Your task to perform on an android device: Search for beats solo 3 on bestbuy.com, select the first entry, and add it to the cart. Image 0: 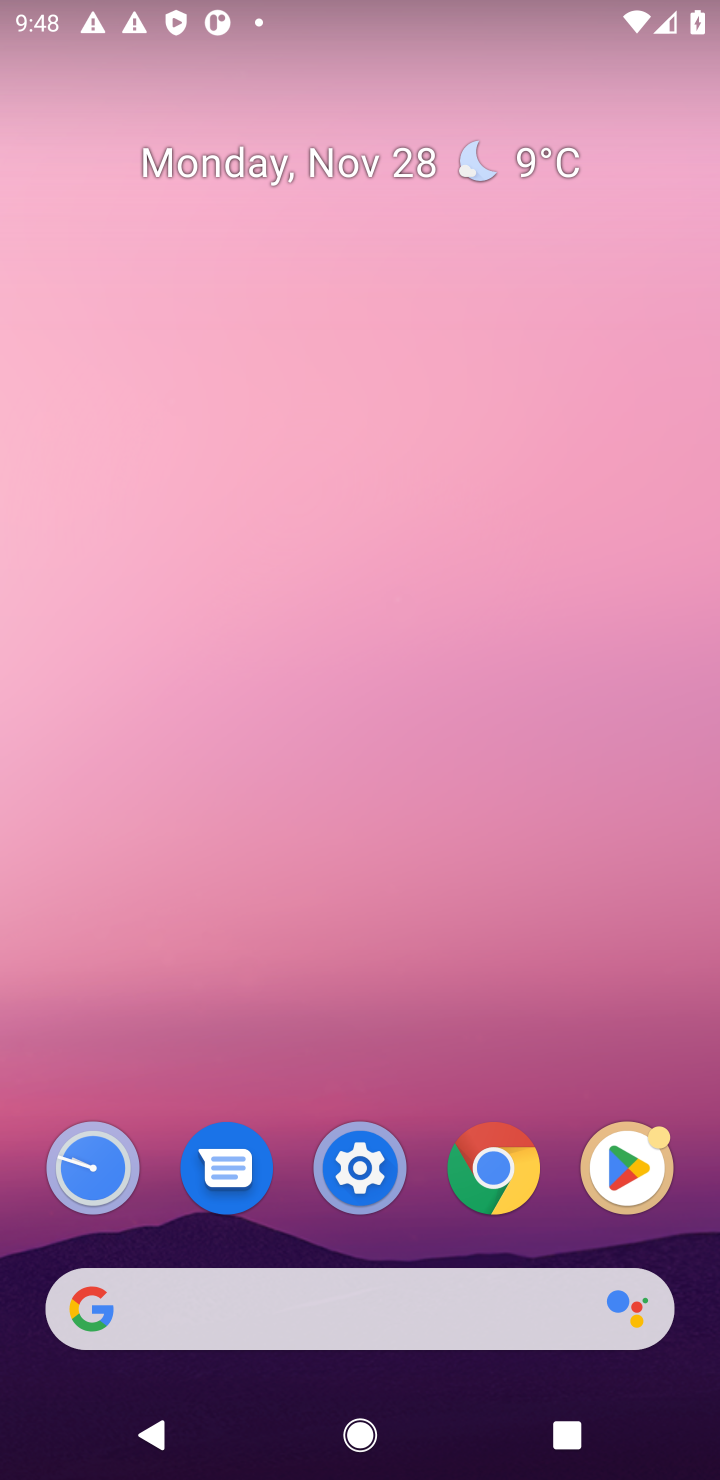
Step 0: click (299, 1315)
Your task to perform on an android device: Search for beats solo 3 on bestbuy.com, select the first entry, and add it to the cart. Image 1: 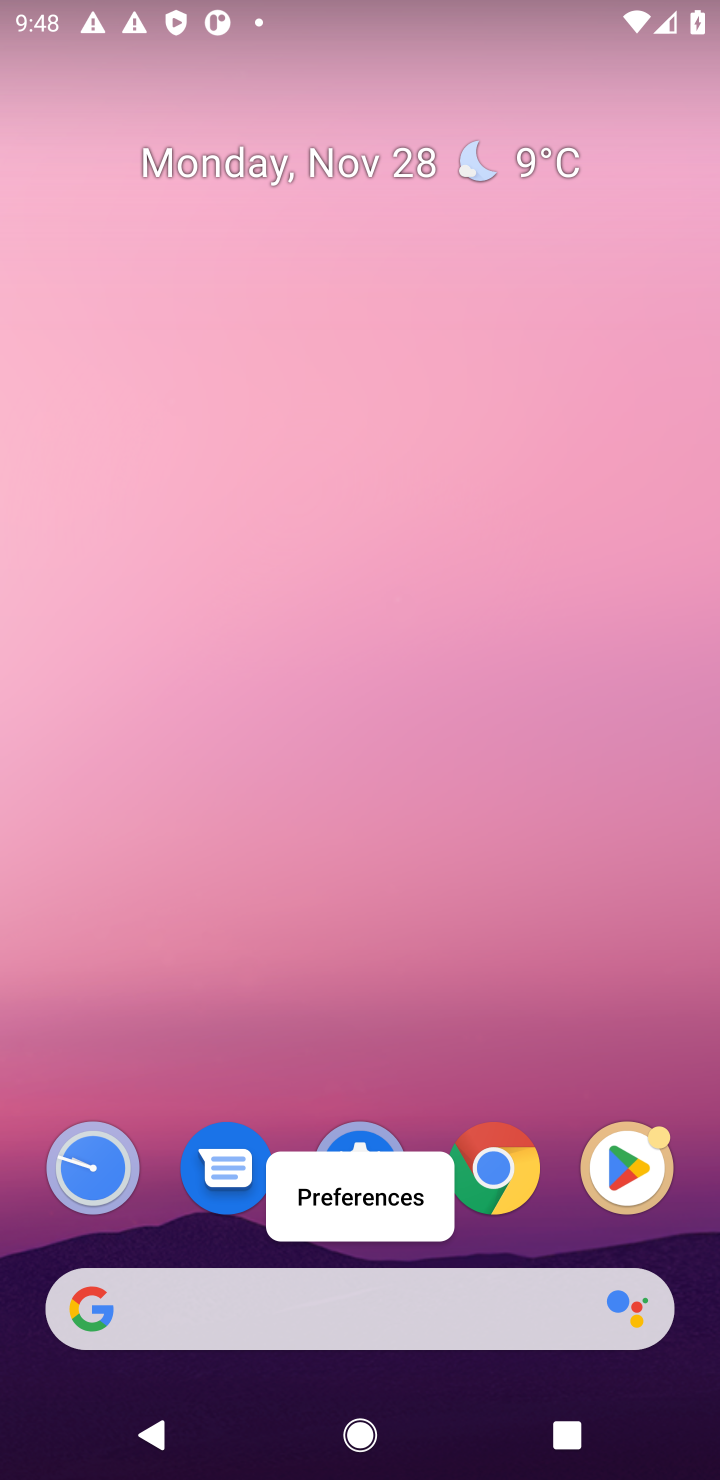
Step 1: type "bestbuy"
Your task to perform on an android device: Search for beats solo 3 on bestbuy.com, select the first entry, and add it to the cart. Image 2: 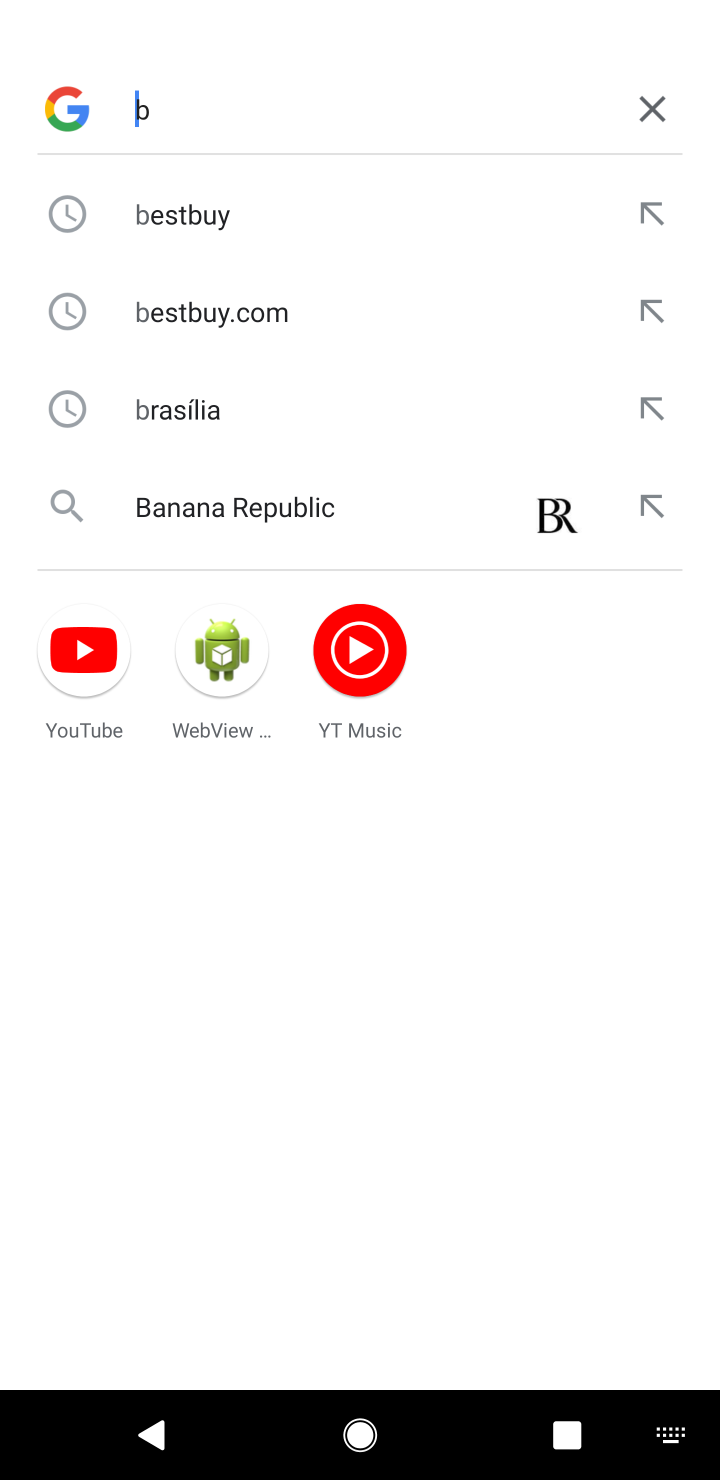
Step 2: click (180, 207)
Your task to perform on an android device: Search for beats solo 3 on bestbuy.com, select the first entry, and add it to the cart. Image 3: 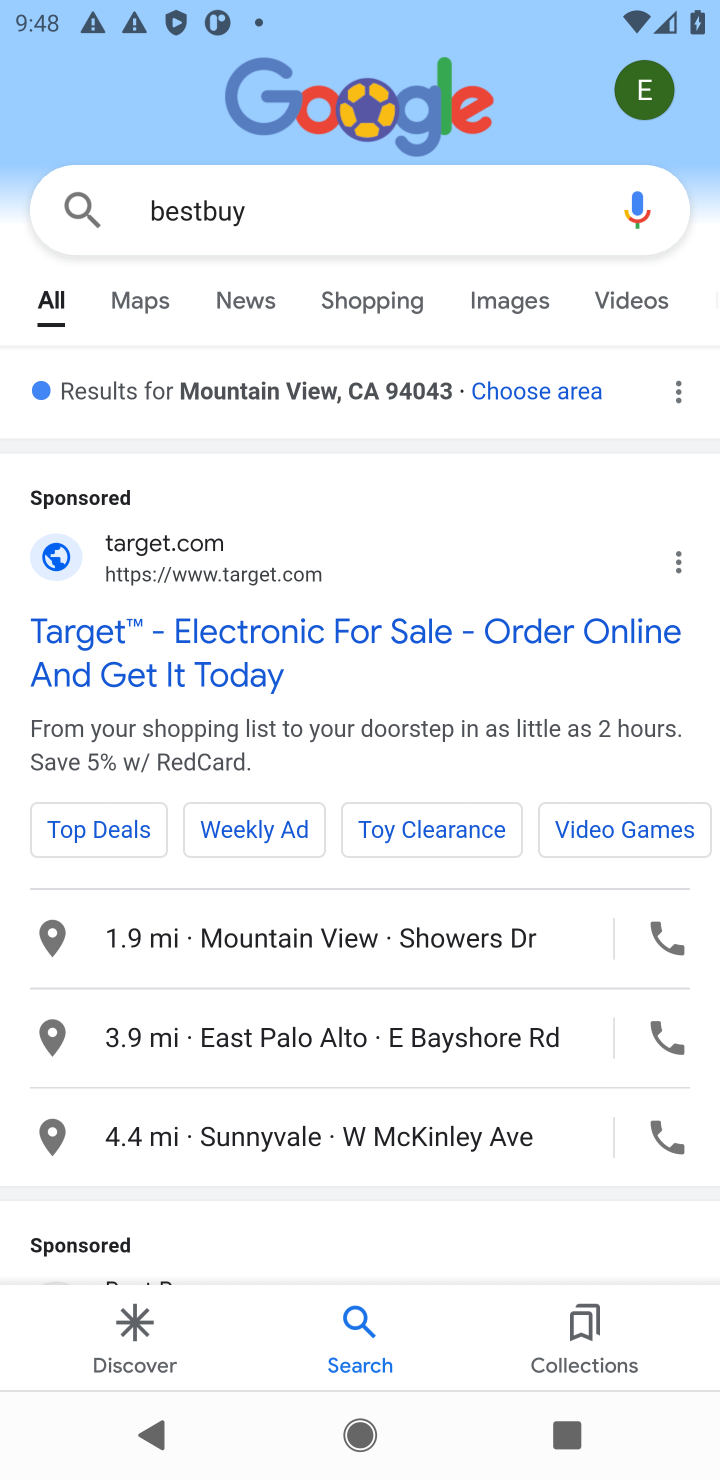
Step 3: click (376, 660)
Your task to perform on an android device: Search for beats solo 3 on bestbuy.com, select the first entry, and add it to the cart. Image 4: 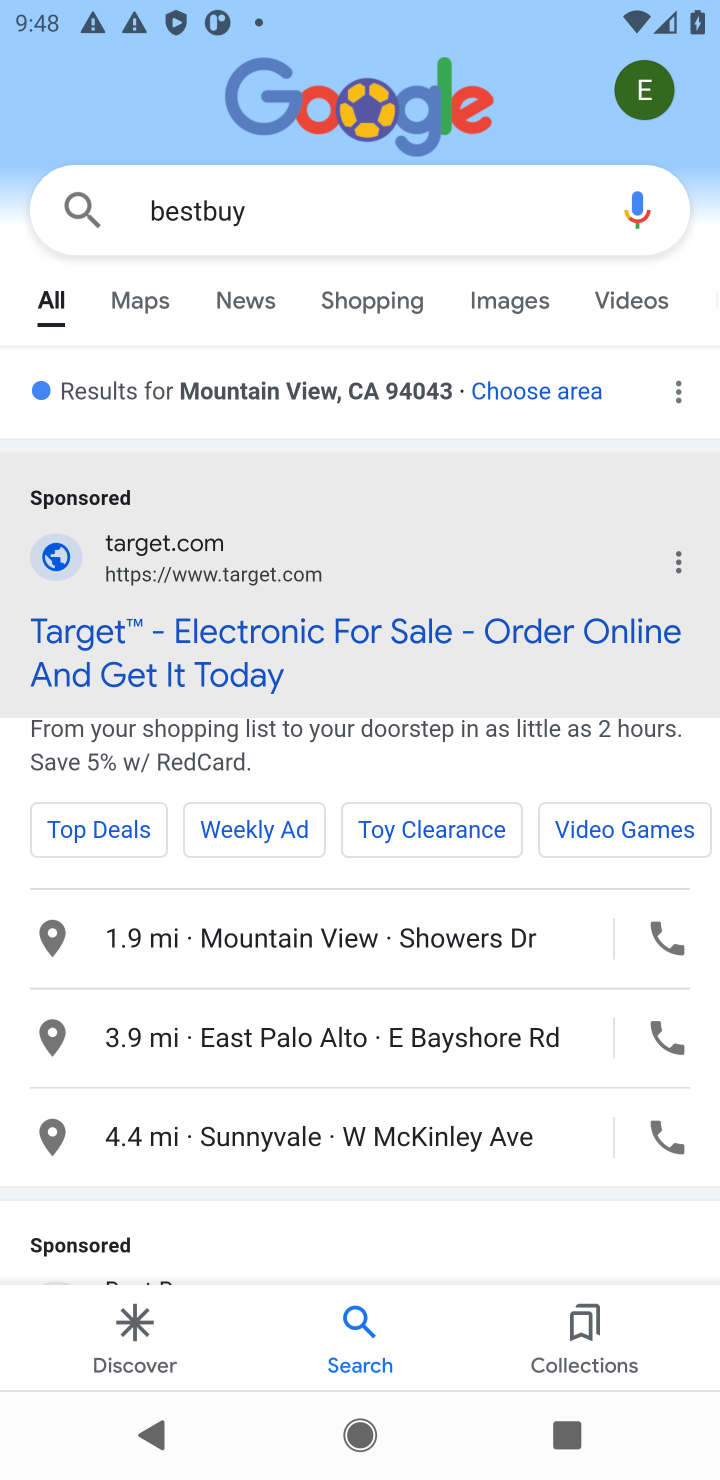
Step 4: click (376, 660)
Your task to perform on an android device: Search for beats solo 3 on bestbuy.com, select the first entry, and add it to the cart. Image 5: 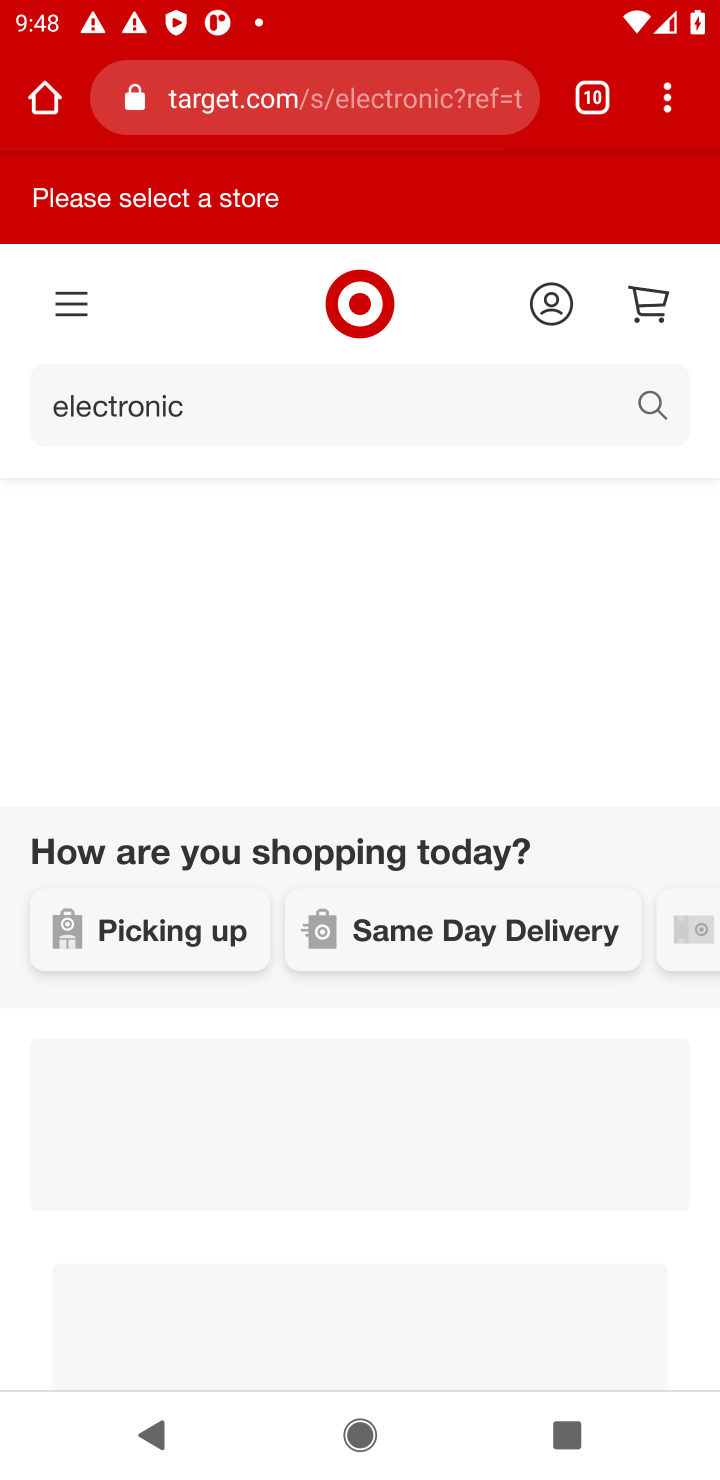
Step 5: click (249, 392)
Your task to perform on an android device: Search for beats solo 3 on bestbuy.com, select the first entry, and add it to the cart. Image 6: 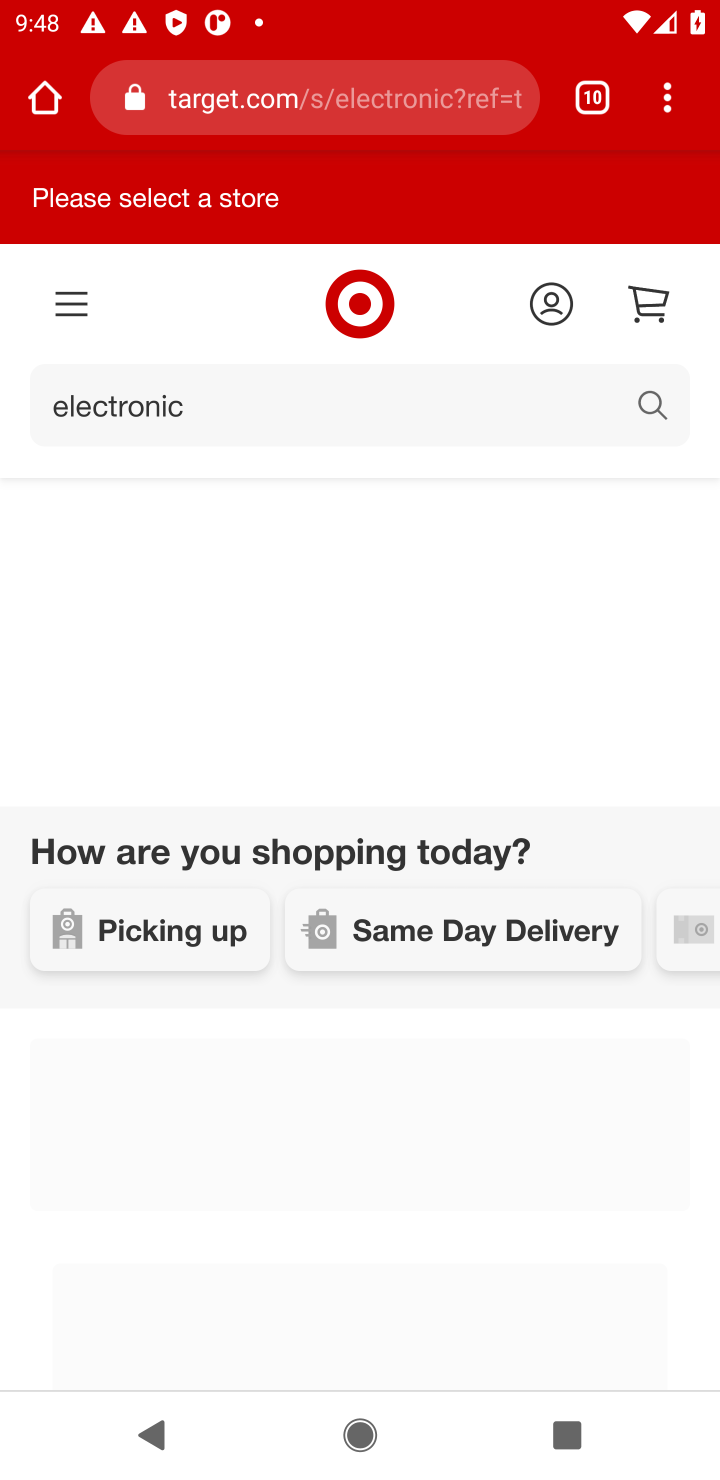
Step 6: click (249, 392)
Your task to perform on an android device: Search for beats solo 3 on bestbuy.com, select the first entry, and add it to the cart. Image 7: 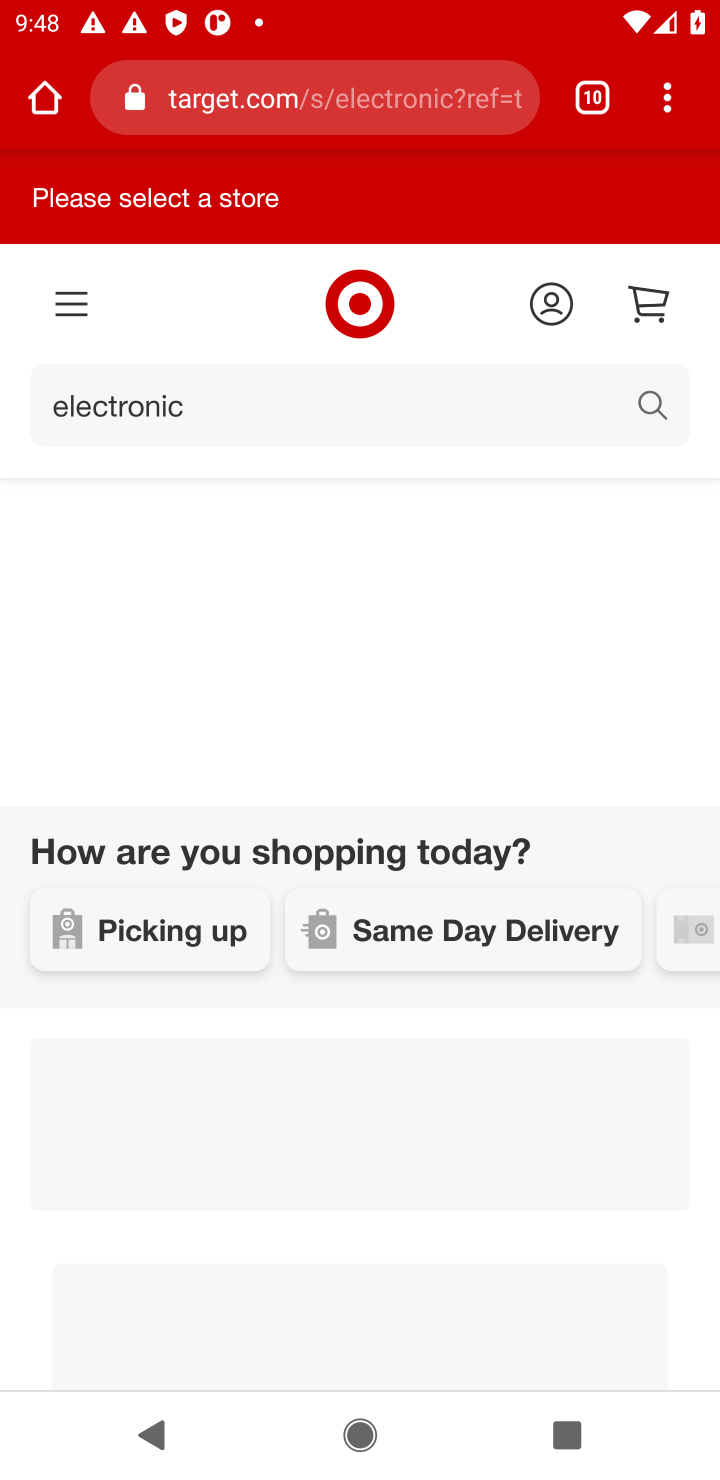
Step 7: click (249, 392)
Your task to perform on an android device: Search for beats solo 3 on bestbuy.com, select the first entry, and add it to the cart. Image 8: 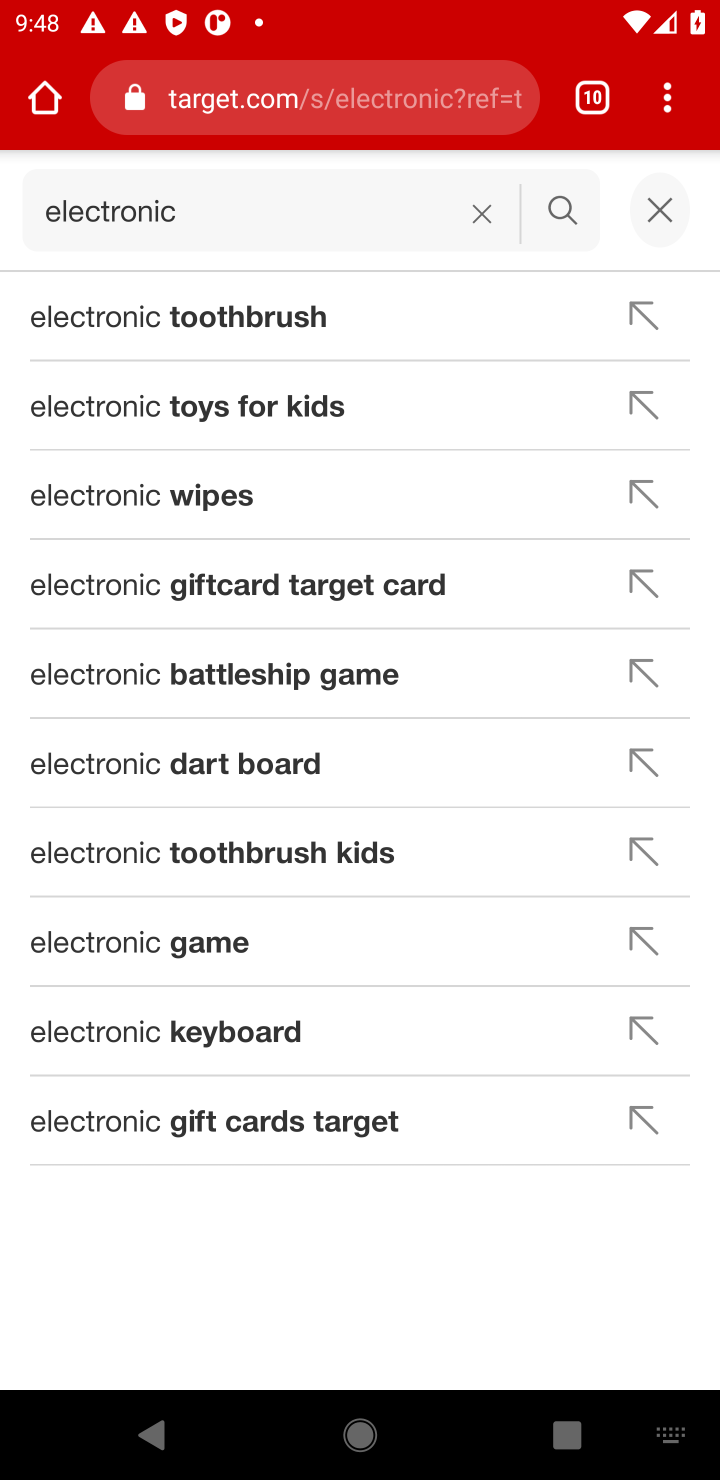
Step 8: click (482, 222)
Your task to perform on an android device: Search for beats solo 3 on bestbuy.com, select the first entry, and add it to the cart. Image 9: 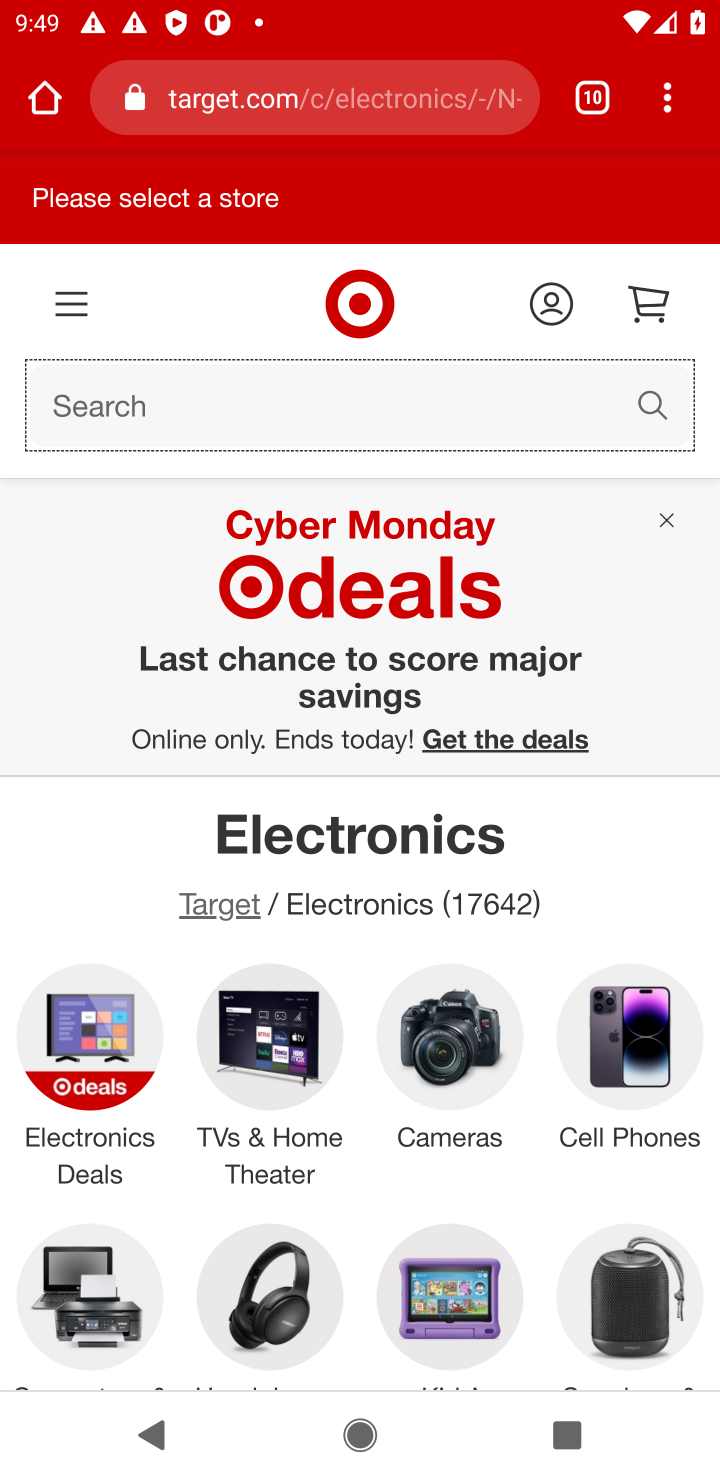
Step 9: type "beats solo 3"
Your task to perform on an android device: Search for beats solo 3 on bestbuy.com, select the first entry, and add it to the cart. Image 10: 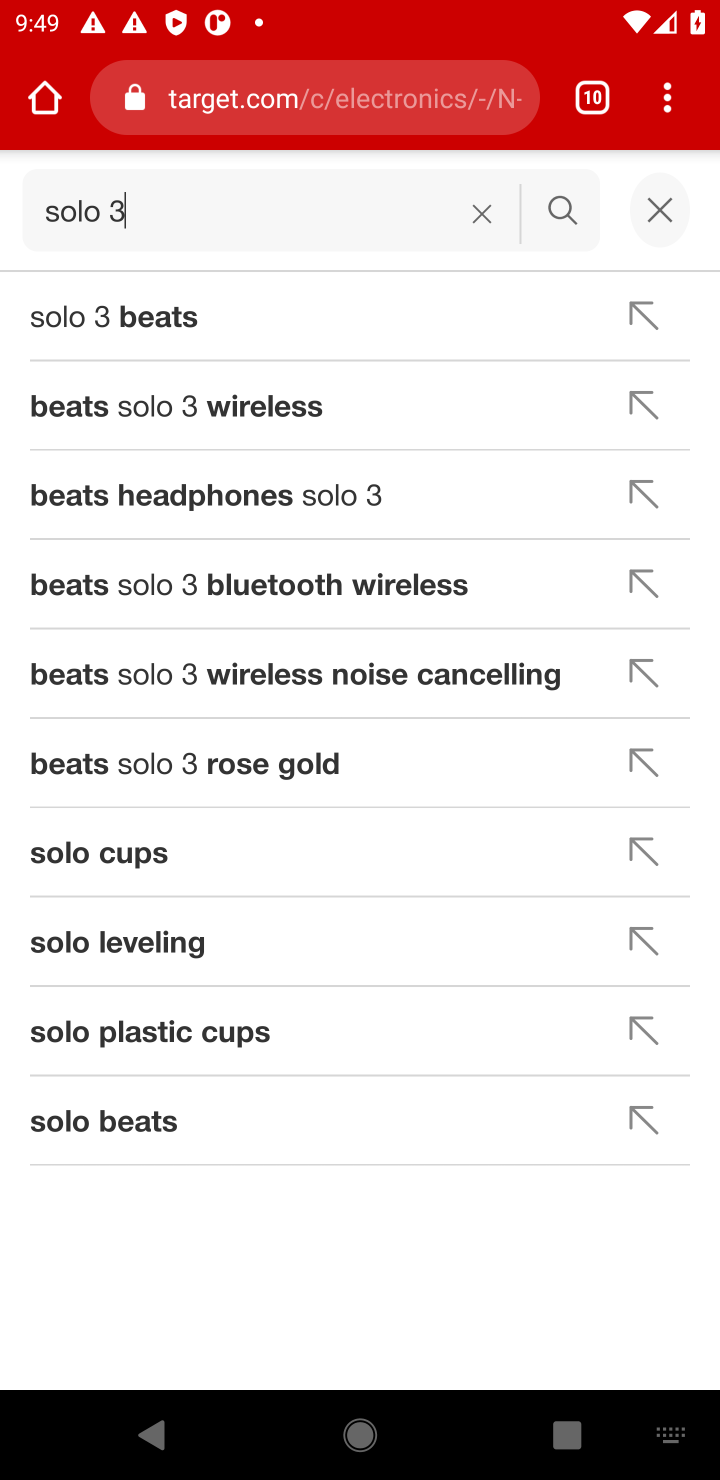
Step 10: click (444, 283)
Your task to perform on an android device: Search for beats solo 3 on bestbuy.com, select the first entry, and add it to the cart. Image 11: 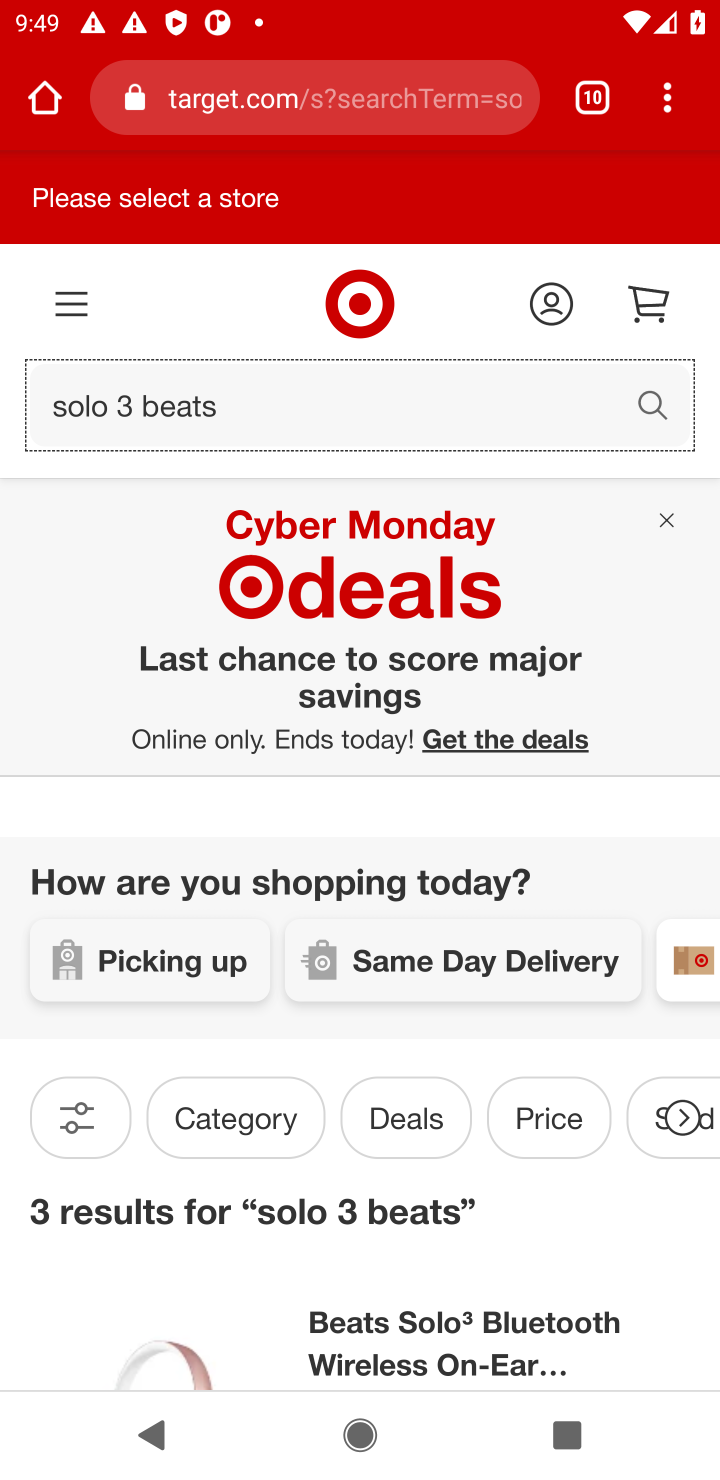
Step 11: task complete